Your task to perform on an android device: find which apps use the phone's location Image 0: 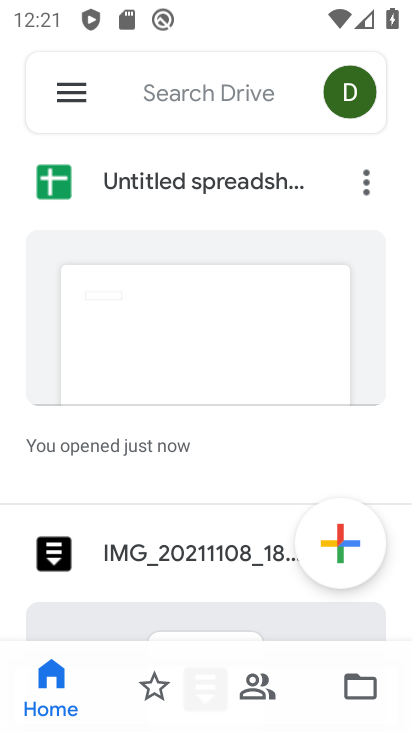
Step 0: press home button
Your task to perform on an android device: find which apps use the phone's location Image 1: 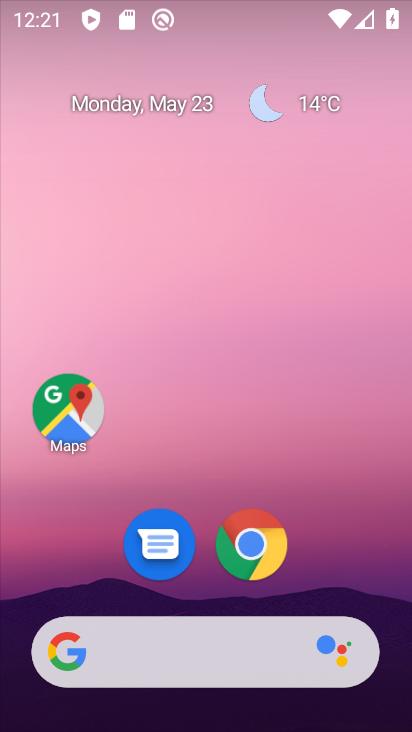
Step 1: drag from (340, 538) to (281, 142)
Your task to perform on an android device: find which apps use the phone's location Image 2: 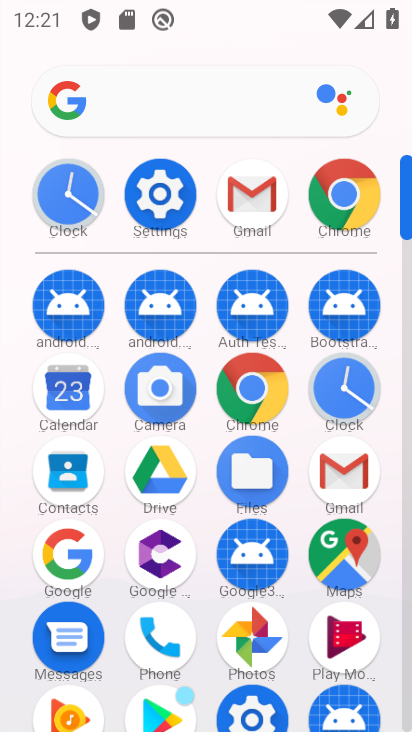
Step 2: click (169, 190)
Your task to perform on an android device: find which apps use the phone's location Image 3: 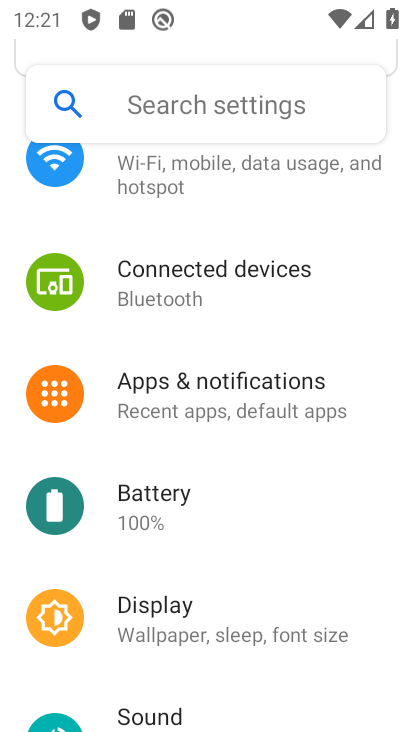
Step 3: drag from (175, 602) to (194, 244)
Your task to perform on an android device: find which apps use the phone's location Image 4: 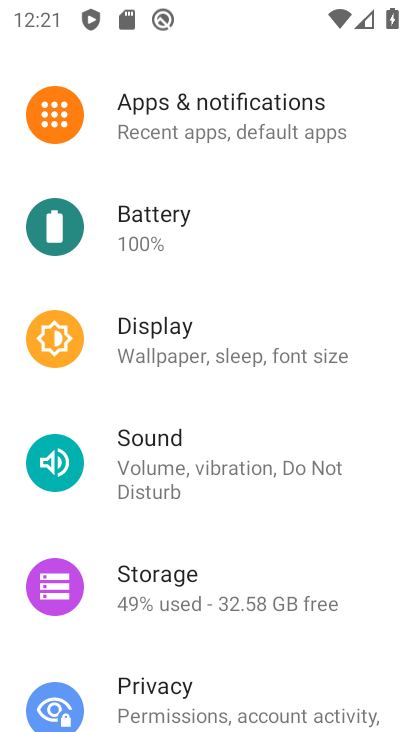
Step 4: drag from (188, 260) to (207, 703)
Your task to perform on an android device: find which apps use the phone's location Image 5: 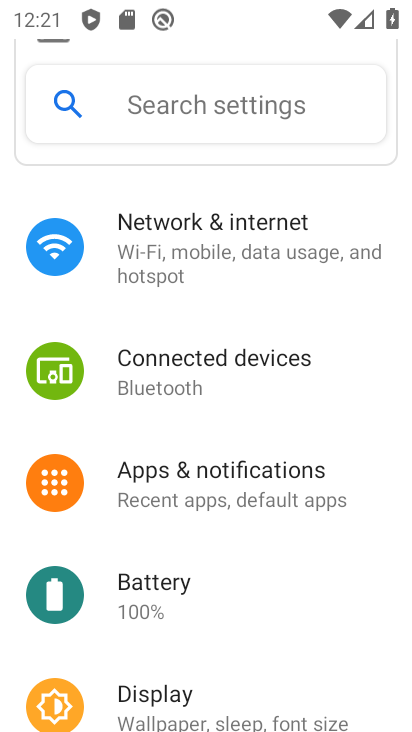
Step 5: drag from (216, 607) to (205, 159)
Your task to perform on an android device: find which apps use the phone's location Image 6: 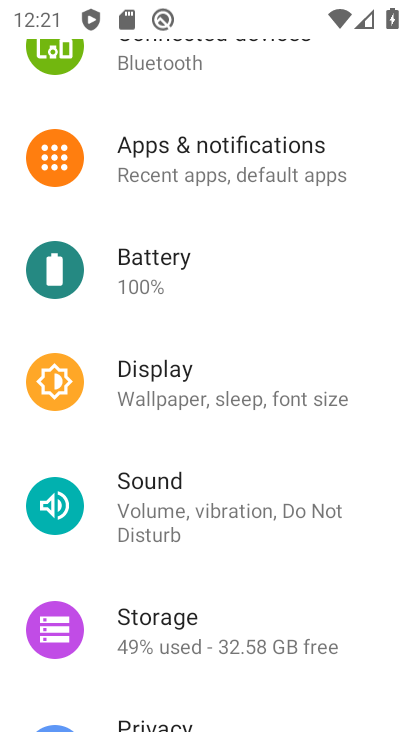
Step 6: drag from (239, 615) to (214, 120)
Your task to perform on an android device: find which apps use the phone's location Image 7: 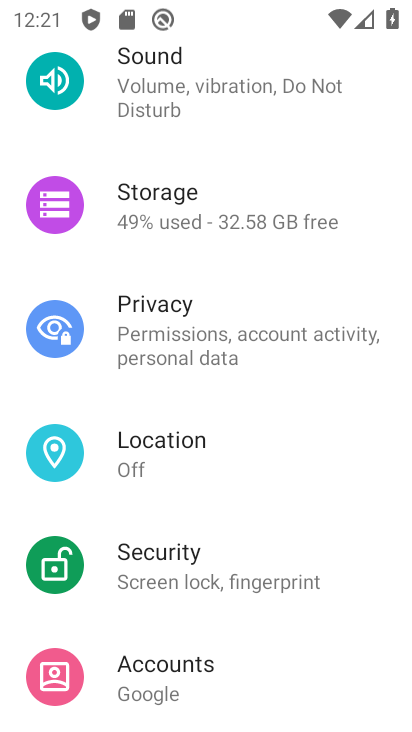
Step 7: click (201, 462)
Your task to perform on an android device: find which apps use the phone's location Image 8: 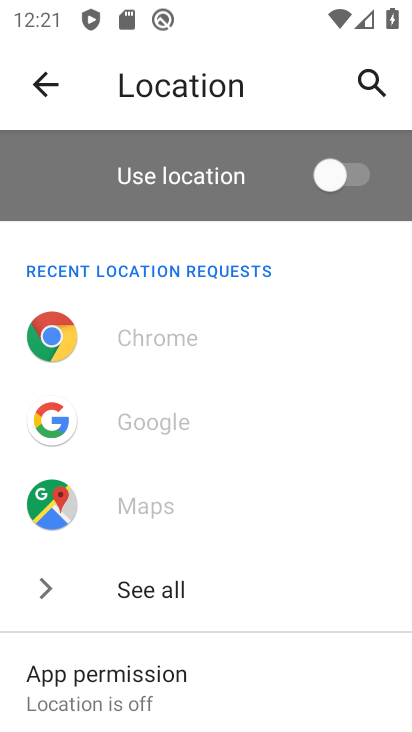
Step 8: drag from (201, 613) to (248, 248)
Your task to perform on an android device: find which apps use the phone's location Image 9: 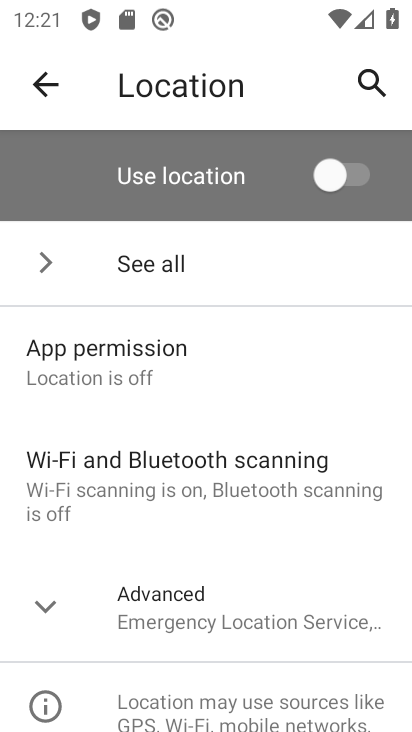
Step 9: click (178, 379)
Your task to perform on an android device: find which apps use the phone's location Image 10: 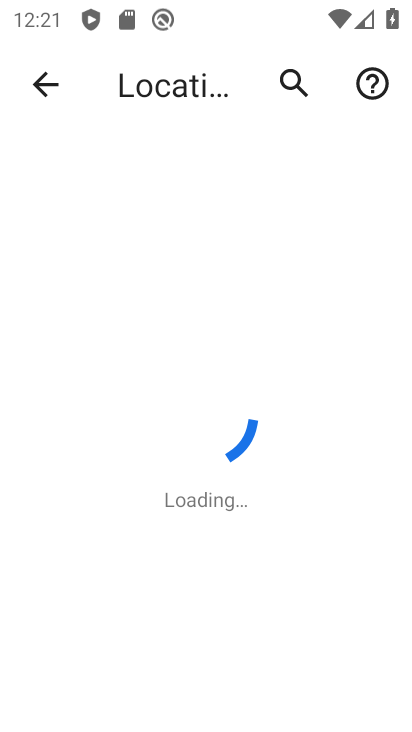
Step 10: task complete